Your task to perform on an android device: turn off improve location accuracy Image 0: 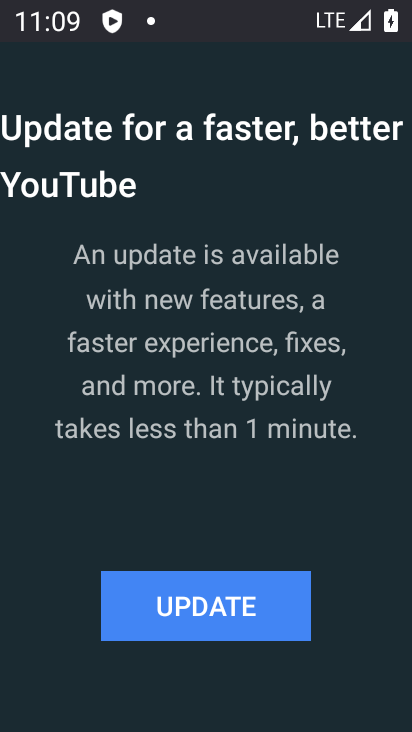
Step 0: press home button
Your task to perform on an android device: turn off improve location accuracy Image 1: 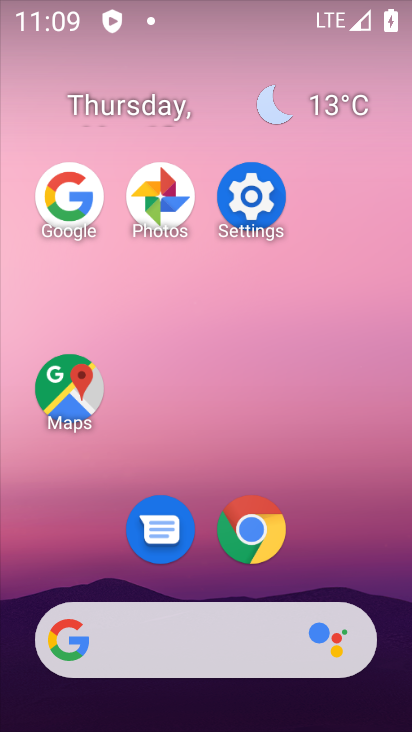
Step 1: click (242, 209)
Your task to perform on an android device: turn off improve location accuracy Image 2: 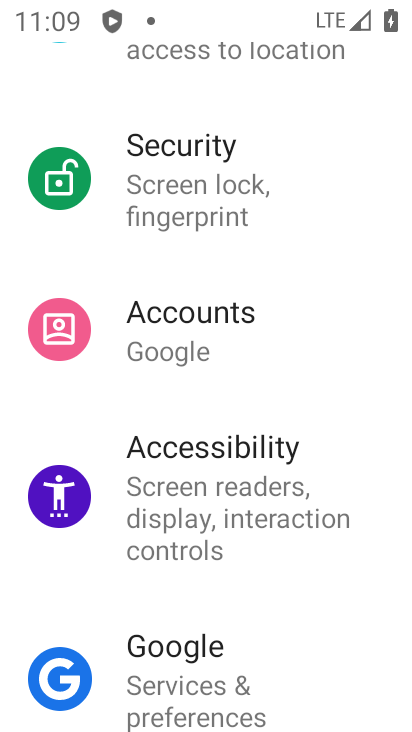
Step 2: drag from (298, 197) to (341, 621)
Your task to perform on an android device: turn off improve location accuracy Image 3: 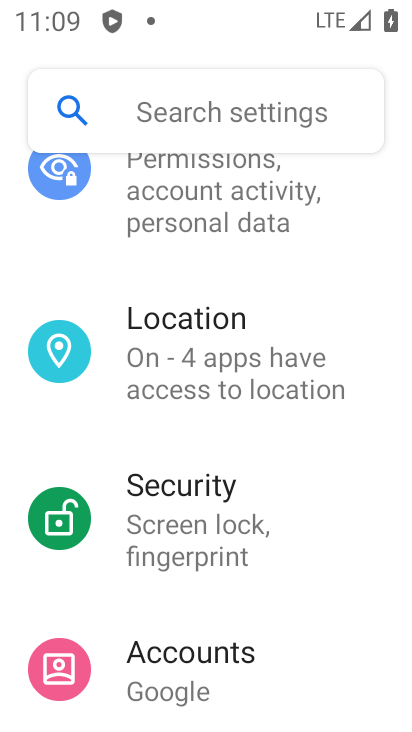
Step 3: click (216, 334)
Your task to perform on an android device: turn off improve location accuracy Image 4: 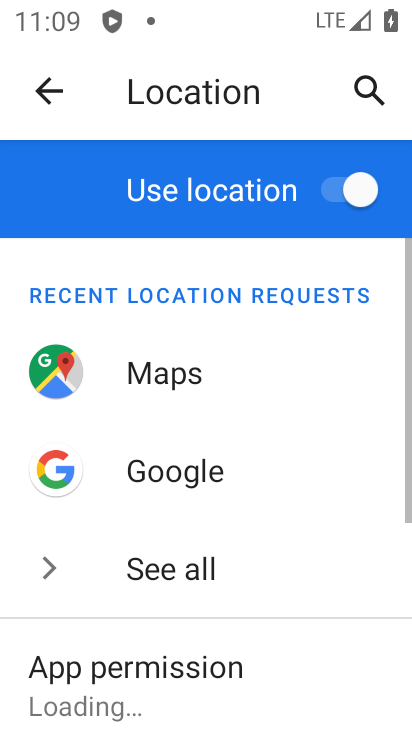
Step 4: drag from (229, 690) to (231, 210)
Your task to perform on an android device: turn off improve location accuracy Image 5: 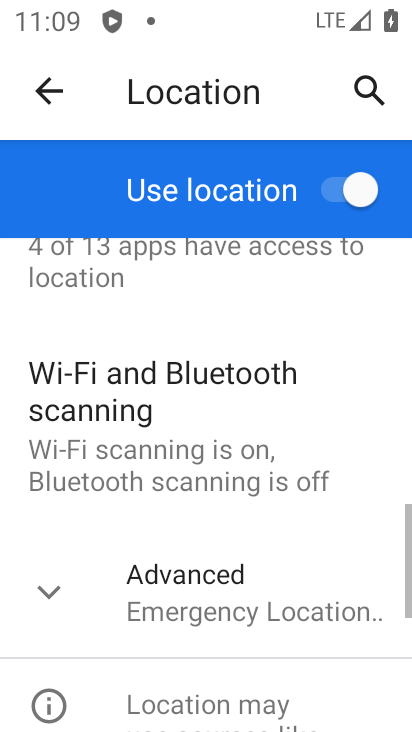
Step 5: click (256, 555)
Your task to perform on an android device: turn off improve location accuracy Image 6: 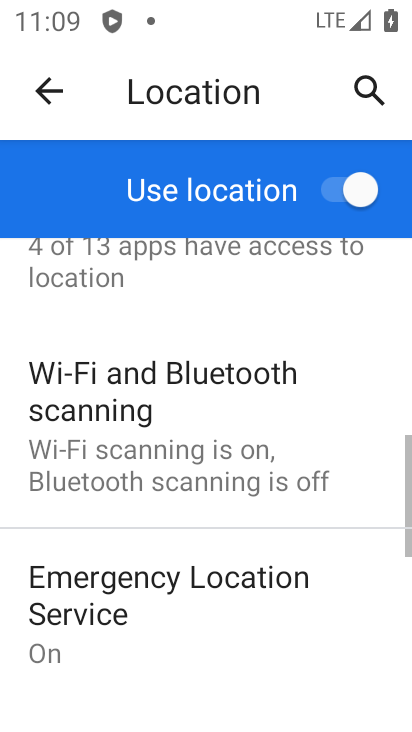
Step 6: drag from (247, 424) to (232, 230)
Your task to perform on an android device: turn off improve location accuracy Image 7: 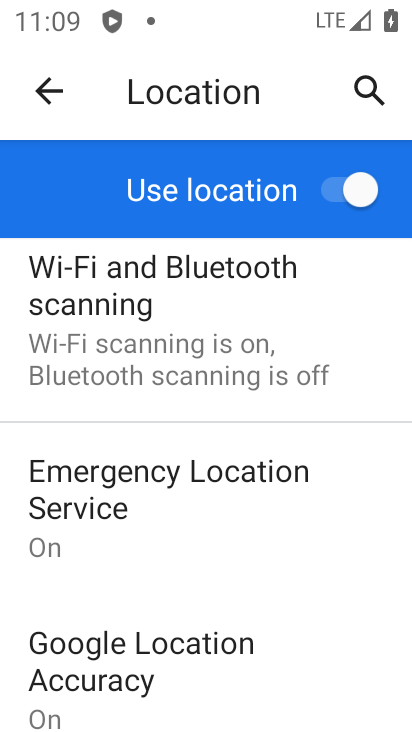
Step 7: drag from (234, 626) to (279, 363)
Your task to perform on an android device: turn off improve location accuracy Image 8: 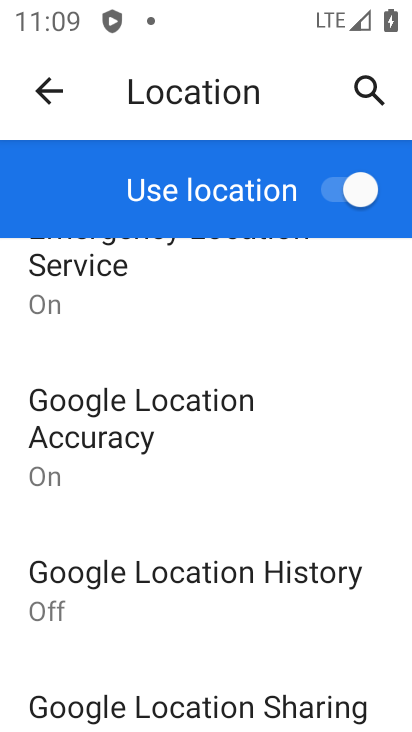
Step 8: click (259, 419)
Your task to perform on an android device: turn off improve location accuracy Image 9: 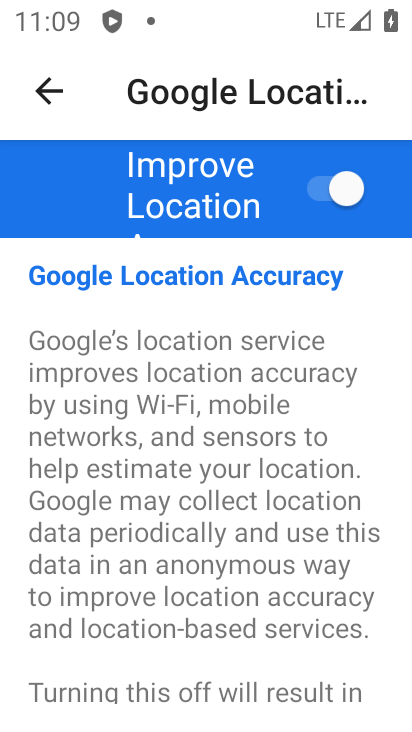
Step 9: click (354, 194)
Your task to perform on an android device: turn off improve location accuracy Image 10: 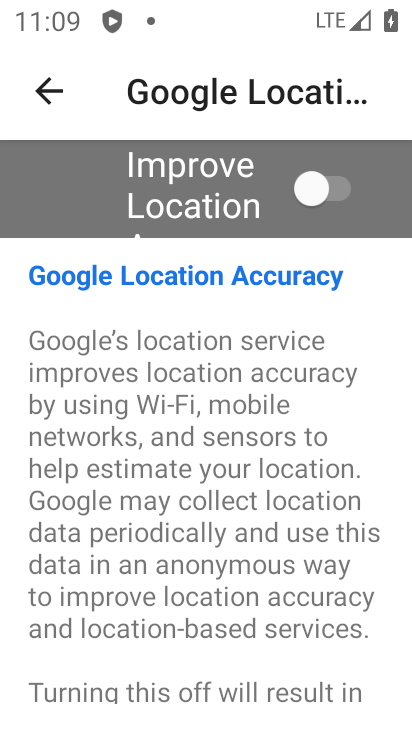
Step 10: task complete